Your task to perform on an android device: open a bookmark in the chrome app Image 0: 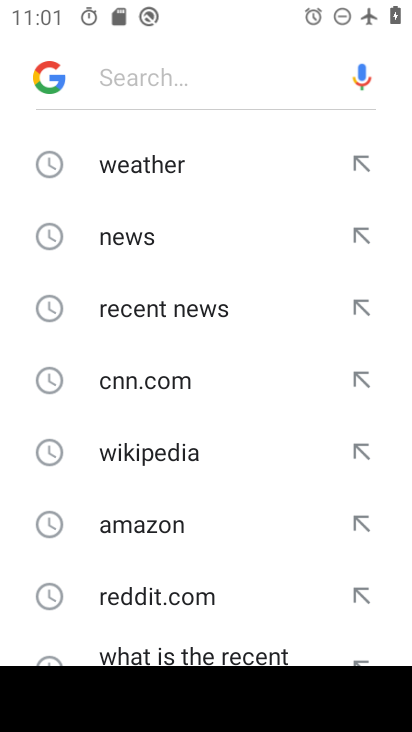
Step 0: press home button
Your task to perform on an android device: open a bookmark in the chrome app Image 1: 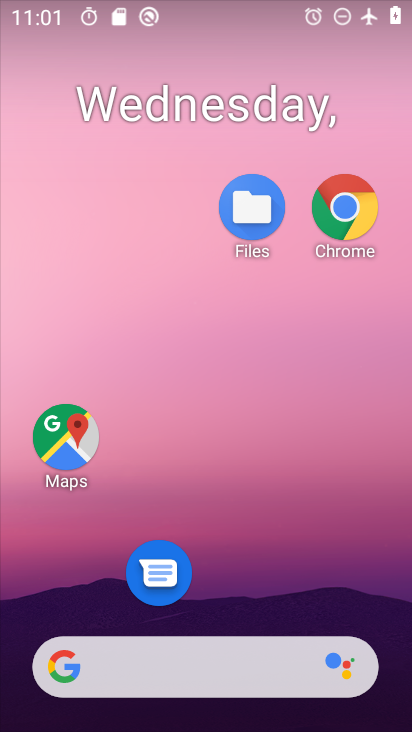
Step 1: click (342, 252)
Your task to perform on an android device: open a bookmark in the chrome app Image 2: 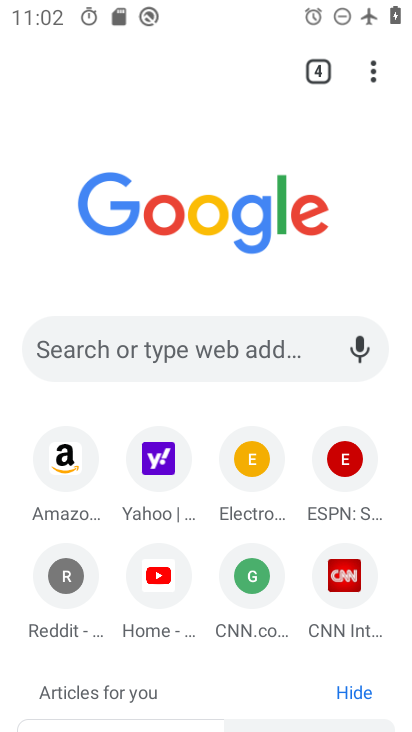
Step 2: click (381, 58)
Your task to perform on an android device: open a bookmark in the chrome app Image 3: 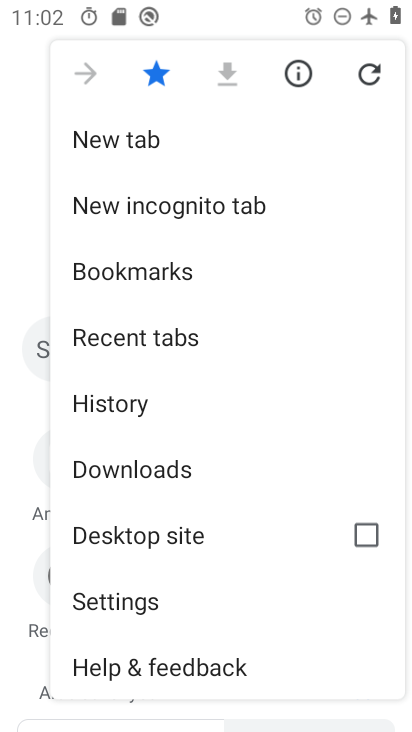
Step 3: click (204, 289)
Your task to perform on an android device: open a bookmark in the chrome app Image 4: 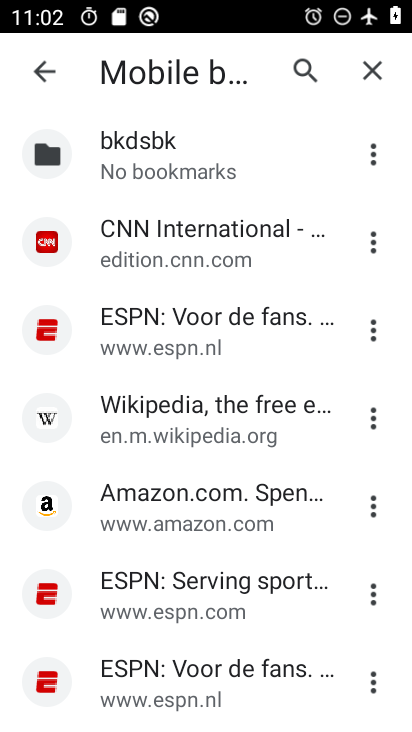
Step 4: drag from (177, 585) to (224, 147)
Your task to perform on an android device: open a bookmark in the chrome app Image 5: 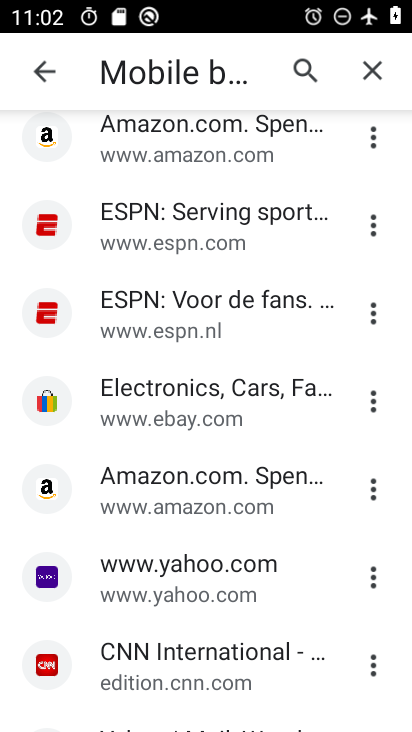
Step 5: click (186, 402)
Your task to perform on an android device: open a bookmark in the chrome app Image 6: 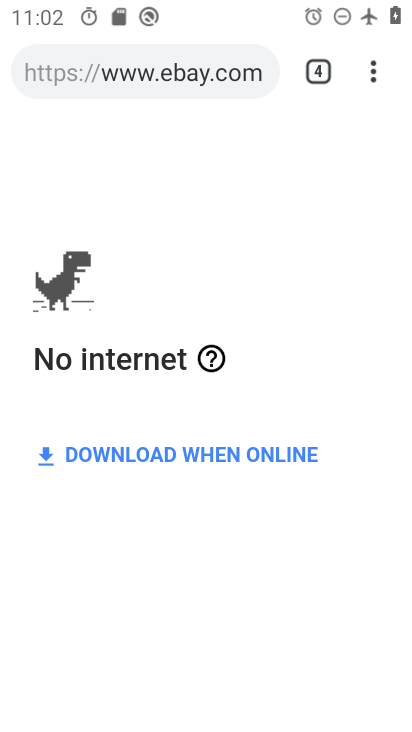
Step 6: task complete